Your task to perform on an android device: Open battery settings Image 0: 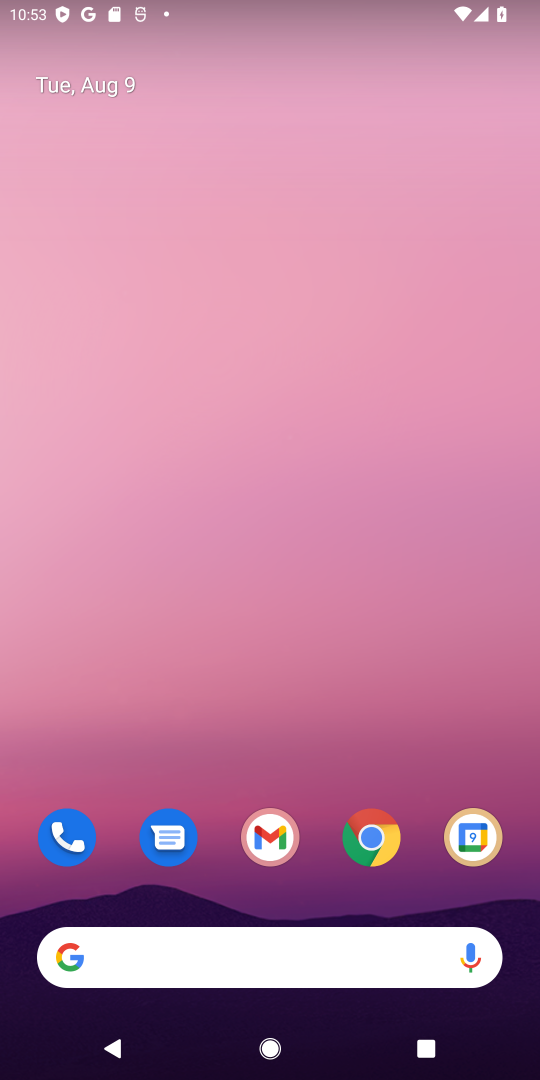
Step 0: drag from (307, 910) to (260, 244)
Your task to perform on an android device: Open battery settings Image 1: 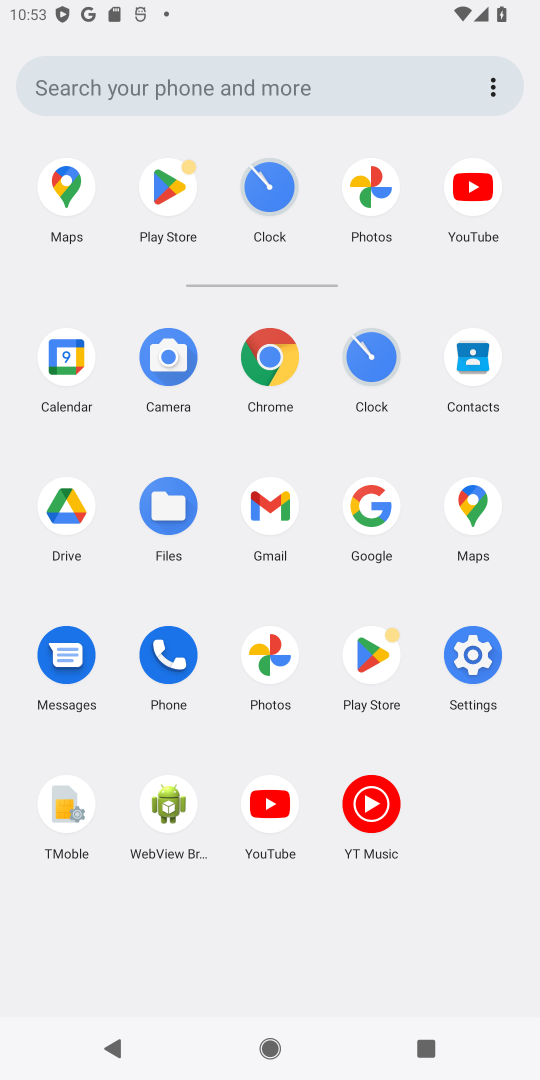
Step 1: click (480, 656)
Your task to perform on an android device: Open battery settings Image 2: 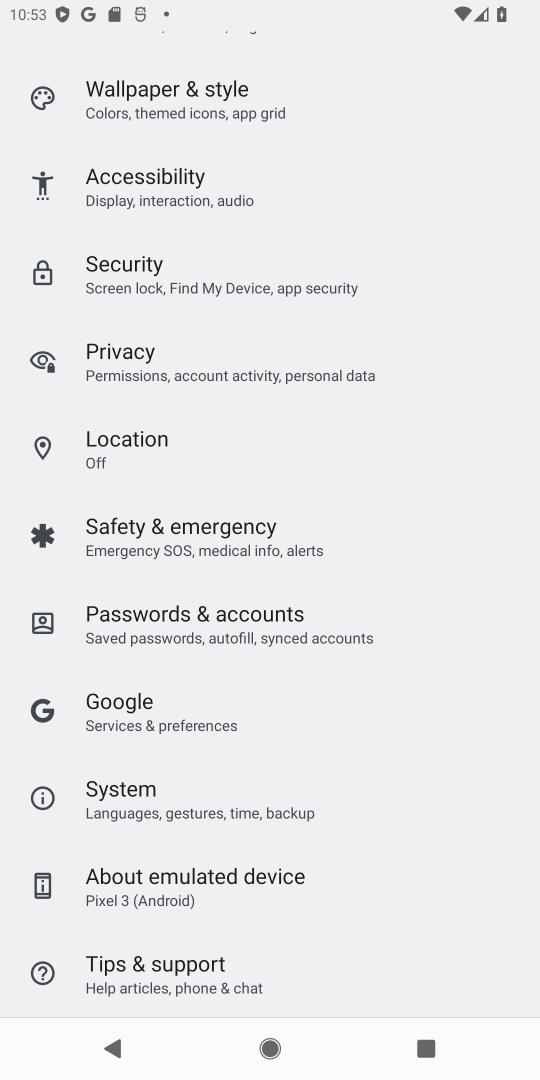
Step 2: drag from (155, 343) to (159, 812)
Your task to perform on an android device: Open battery settings Image 3: 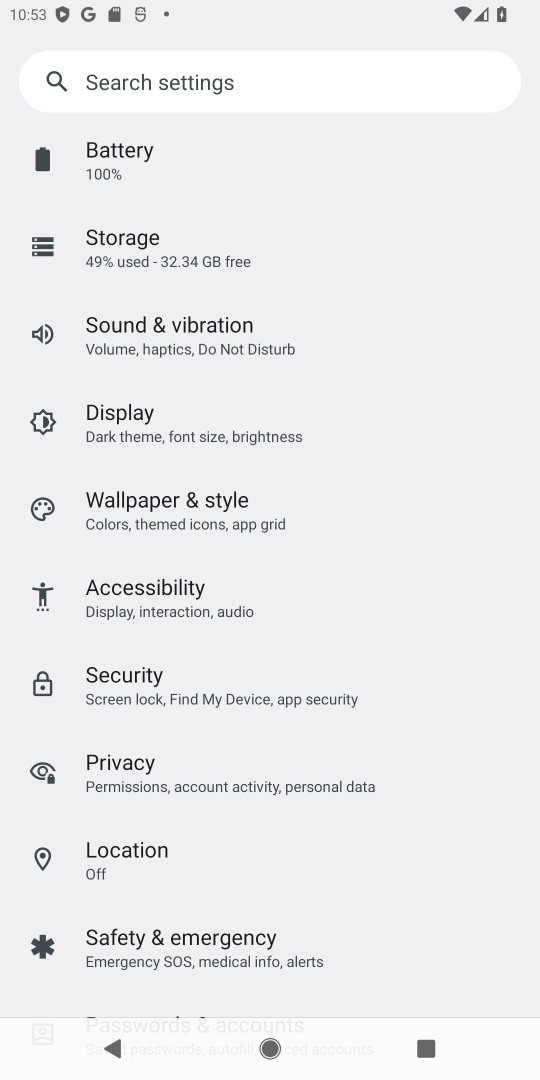
Step 3: drag from (160, 218) to (169, 695)
Your task to perform on an android device: Open battery settings Image 4: 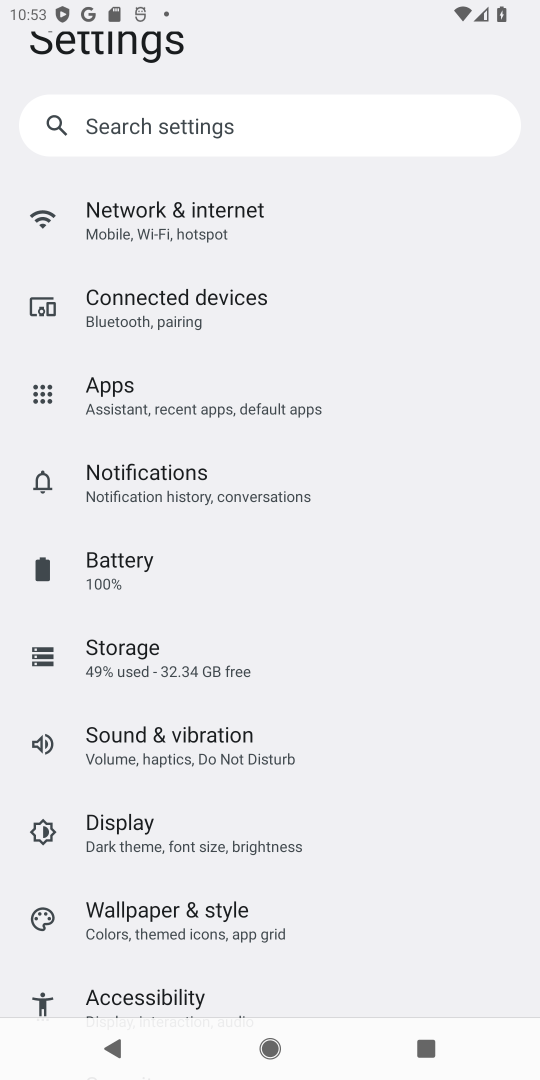
Step 4: click (114, 550)
Your task to perform on an android device: Open battery settings Image 5: 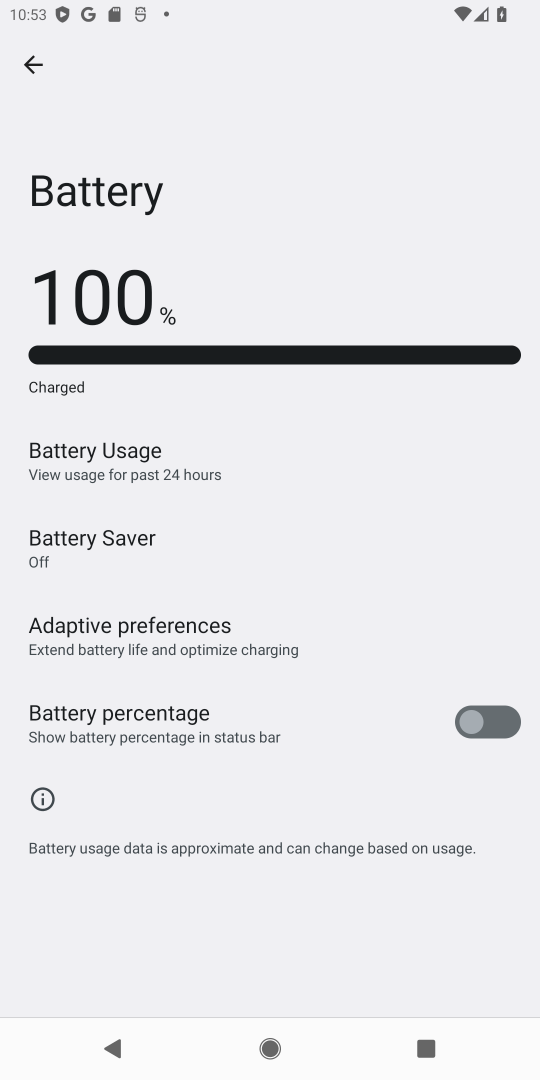
Step 5: task complete